Your task to perform on an android device: turn pop-ups off in chrome Image 0: 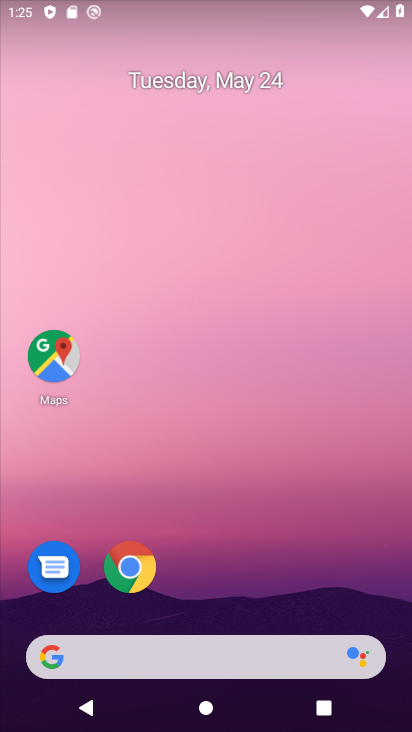
Step 0: click (148, 566)
Your task to perform on an android device: turn pop-ups off in chrome Image 1: 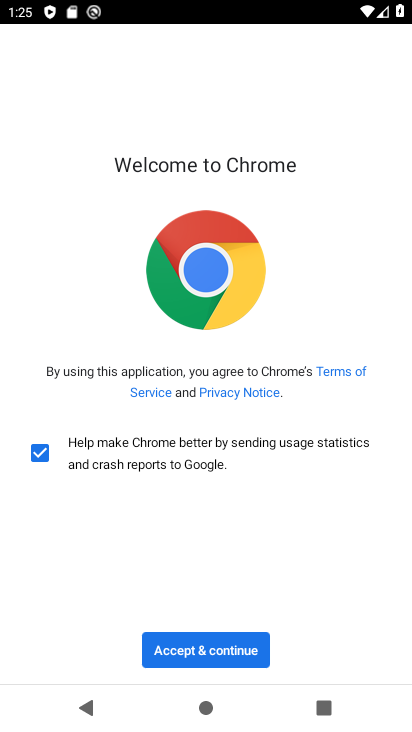
Step 1: click (245, 657)
Your task to perform on an android device: turn pop-ups off in chrome Image 2: 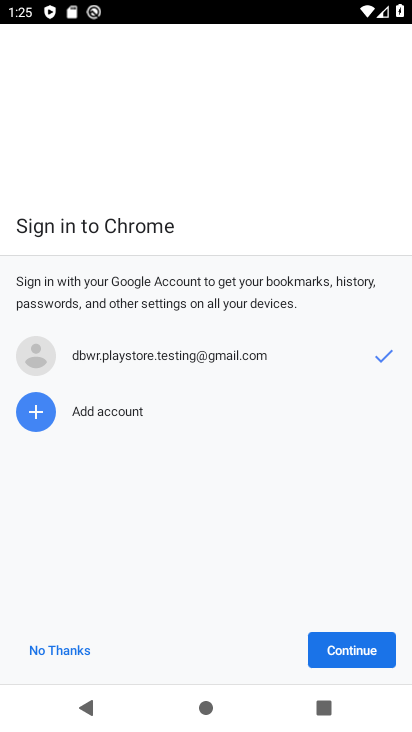
Step 2: click (346, 651)
Your task to perform on an android device: turn pop-ups off in chrome Image 3: 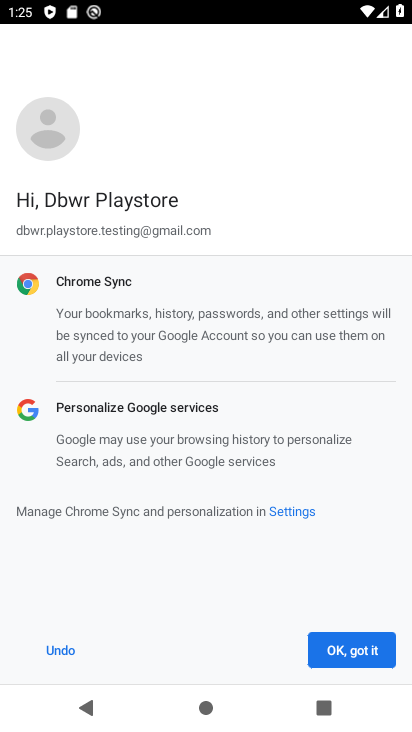
Step 3: click (361, 648)
Your task to perform on an android device: turn pop-ups off in chrome Image 4: 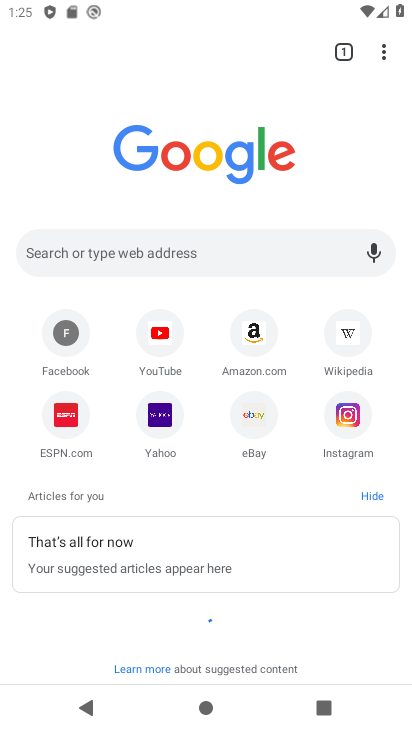
Step 4: click (392, 55)
Your task to perform on an android device: turn pop-ups off in chrome Image 5: 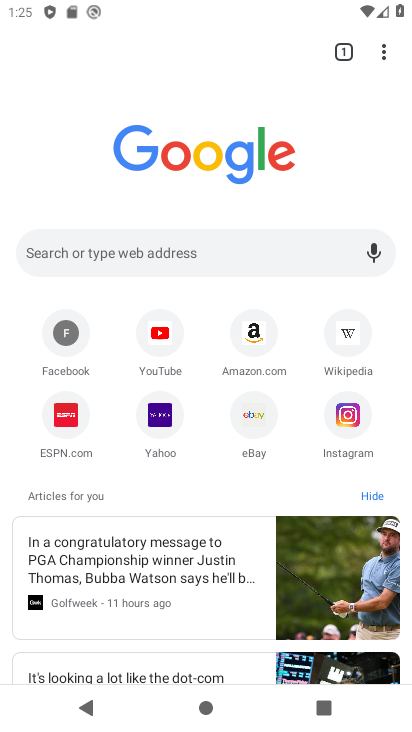
Step 5: drag from (373, 45) to (302, 439)
Your task to perform on an android device: turn pop-ups off in chrome Image 6: 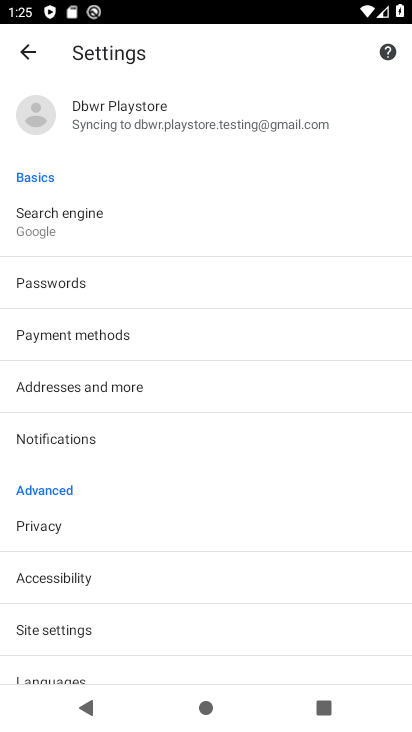
Step 6: drag from (121, 630) to (220, 303)
Your task to perform on an android device: turn pop-ups off in chrome Image 7: 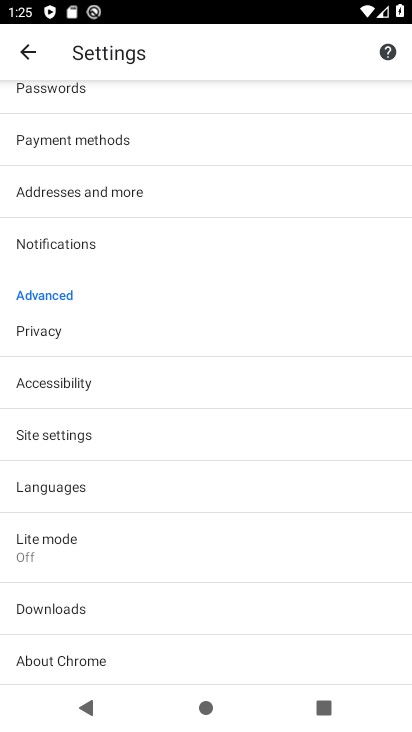
Step 7: click (100, 429)
Your task to perform on an android device: turn pop-ups off in chrome Image 8: 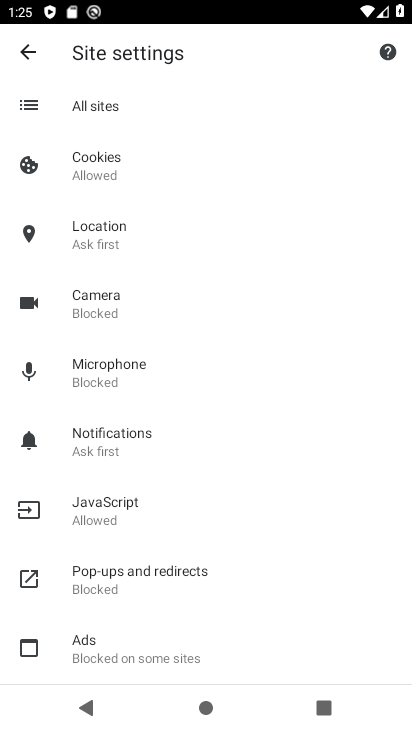
Step 8: click (236, 589)
Your task to perform on an android device: turn pop-ups off in chrome Image 9: 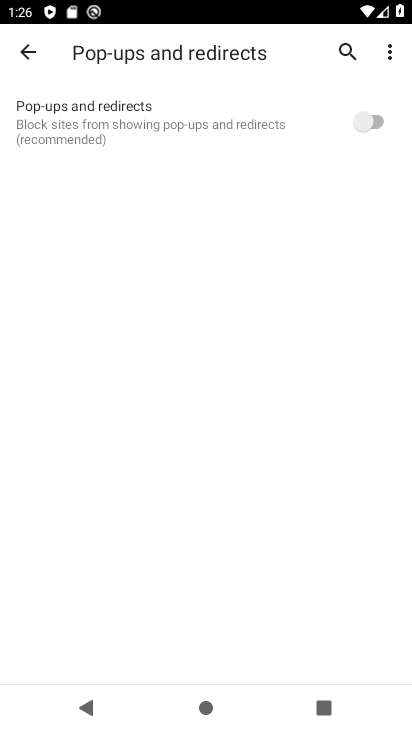
Step 9: task complete